Your task to perform on an android device: turn on data saver in the chrome app Image 0: 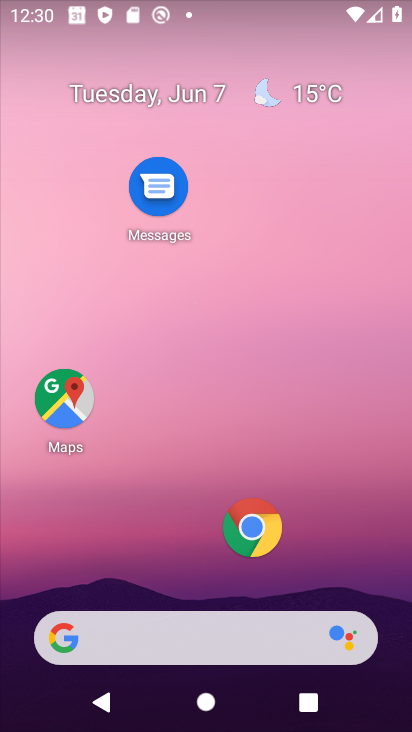
Step 0: click (257, 536)
Your task to perform on an android device: turn on data saver in the chrome app Image 1: 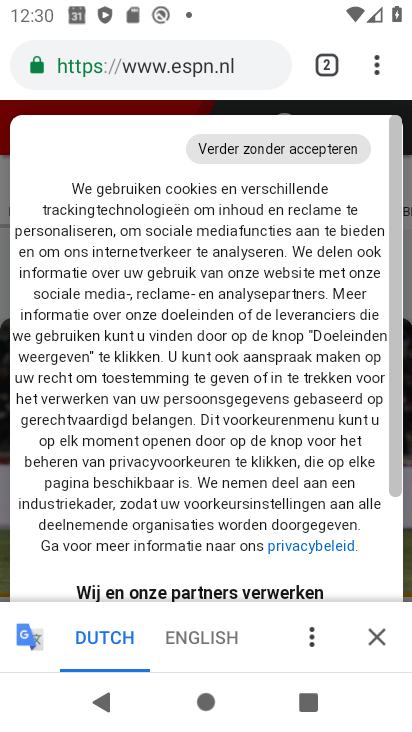
Step 1: click (379, 61)
Your task to perform on an android device: turn on data saver in the chrome app Image 2: 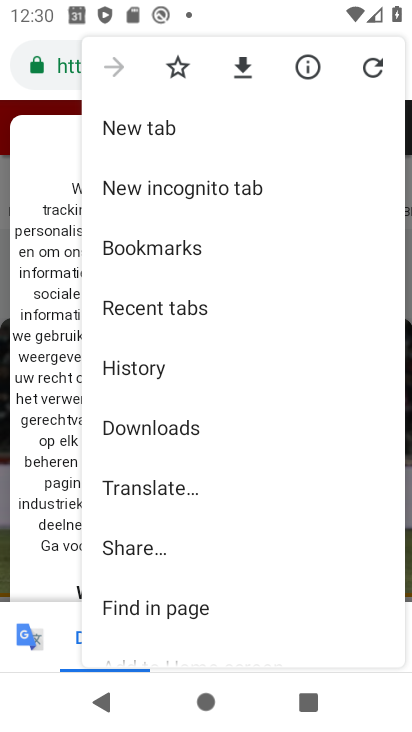
Step 2: drag from (172, 589) to (180, 205)
Your task to perform on an android device: turn on data saver in the chrome app Image 3: 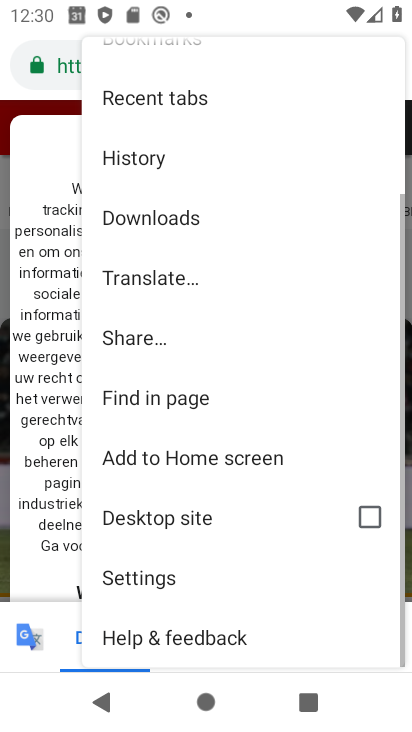
Step 3: click (146, 583)
Your task to perform on an android device: turn on data saver in the chrome app Image 4: 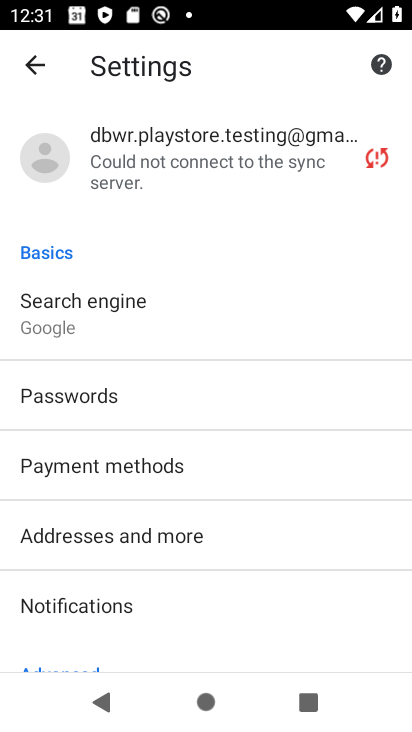
Step 4: drag from (142, 650) to (141, 336)
Your task to perform on an android device: turn on data saver in the chrome app Image 5: 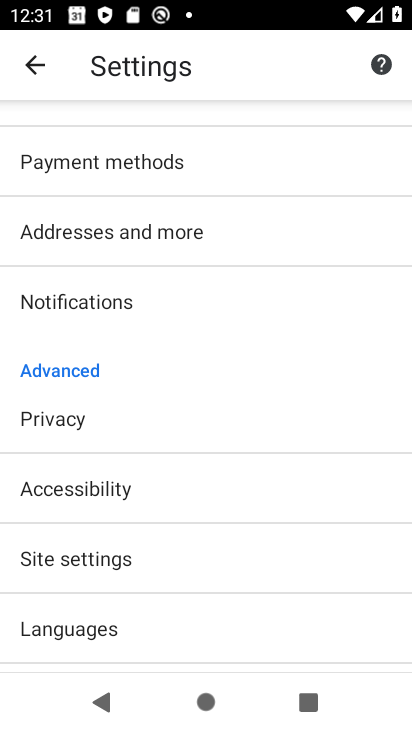
Step 5: drag from (142, 627) to (175, 253)
Your task to perform on an android device: turn on data saver in the chrome app Image 6: 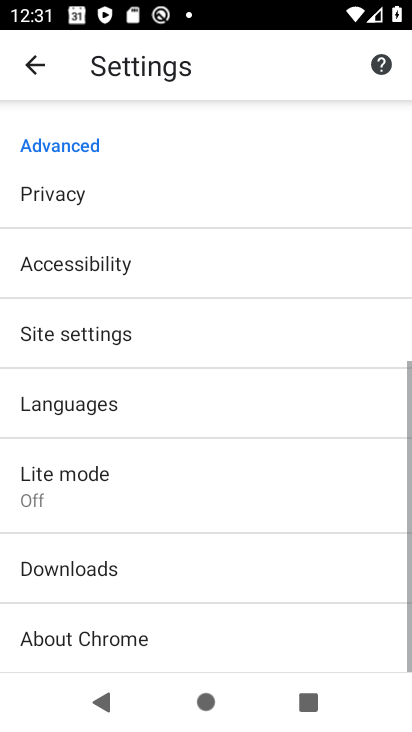
Step 6: click (80, 500)
Your task to perform on an android device: turn on data saver in the chrome app Image 7: 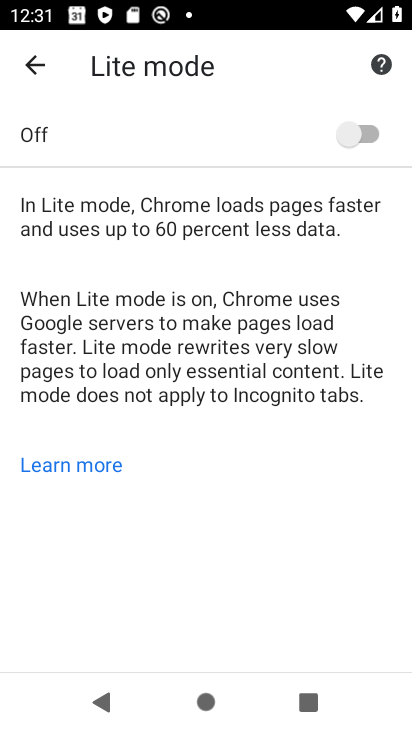
Step 7: click (368, 133)
Your task to perform on an android device: turn on data saver in the chrome app Image 8: 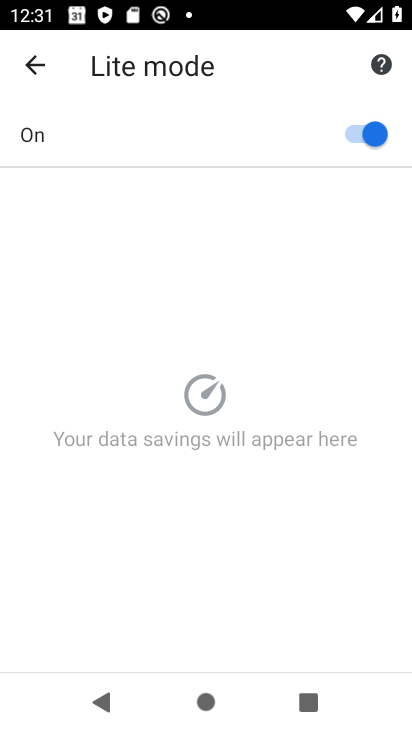
Step 8: task complete